Your task to perform on an android device: turn on improve location accuracy Image 0: 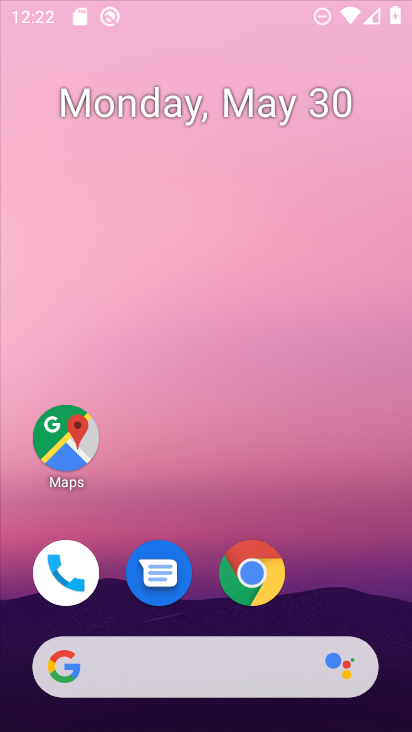
Step 0: press home button
Your task to perform on an android device: turn on improve location accuracy Image 1: 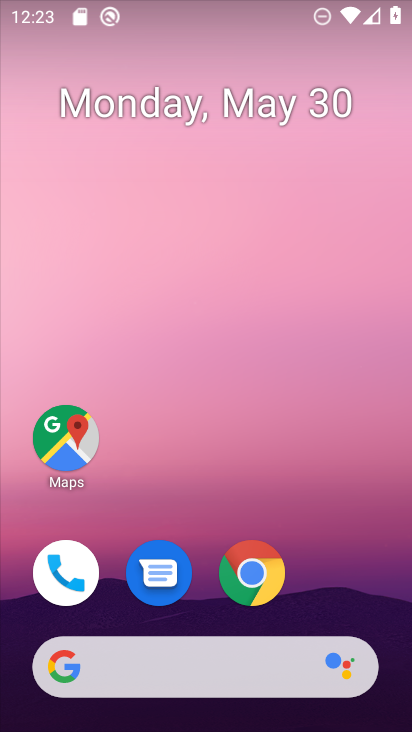
Step 1: drag from (355, 595) to (258, 125)
Your task to perform on an android device: turn on improve location accuracy Image 2: 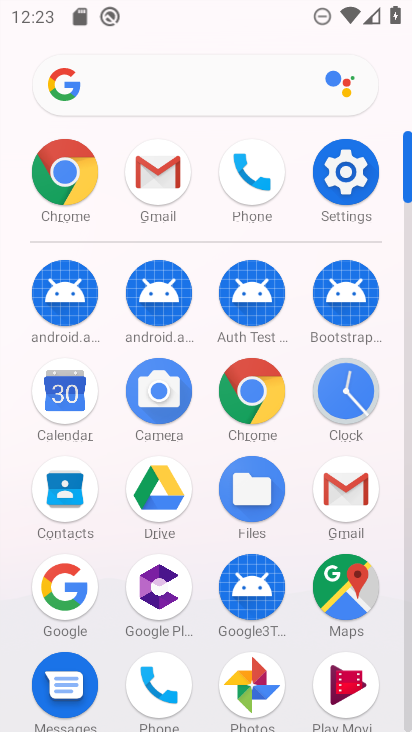
Step 2: click (365, 192)
Your task to perform on an android device: turn on improve location accuracy Image 3: 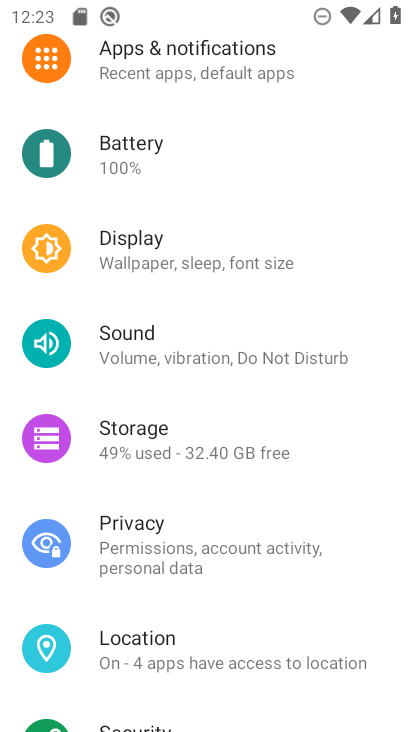
Step 3: click (142, 641)
Your task to perform on an android device: turn on improve location accuracy Image 4: 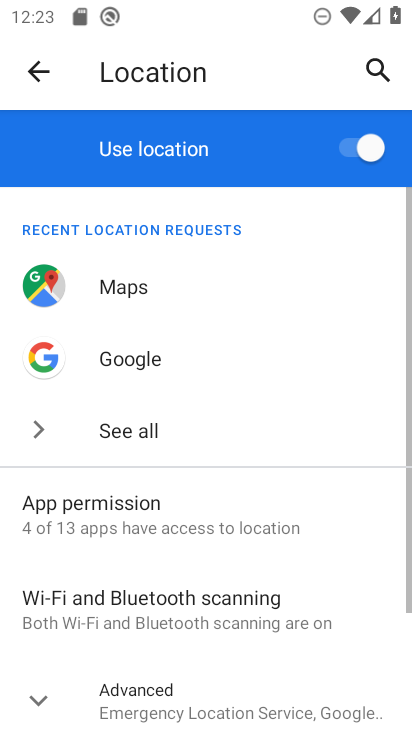
Step 4: click (156, 696)
Your task to perform on an android device: turn on improve location accuracy Image 5: 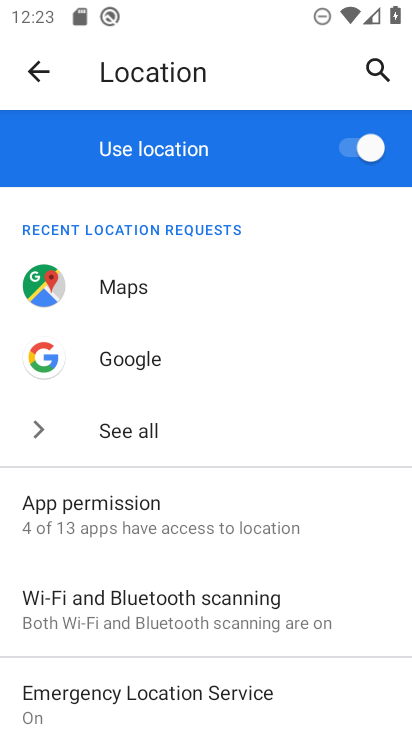
Step 5: drag from (332, 689) to (321, 301)
Your task to perform on an android device: turn on improve location accuracy Image 6: 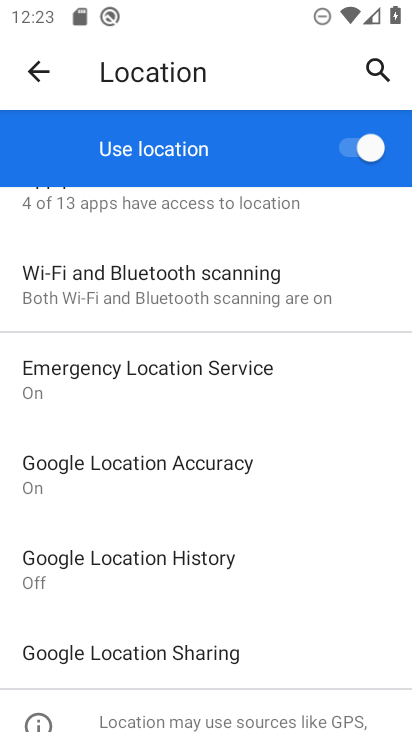
Step 6: click (139, 462)
Your task to perform on an android device: turn on improve location accuracy Image 7: 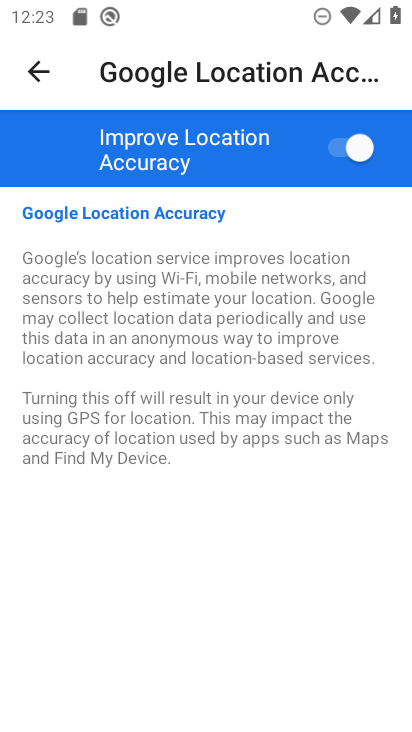
Step 7: task complete